Your task to perform on an android device: turn off notifications settings in the gmail app Image 0: 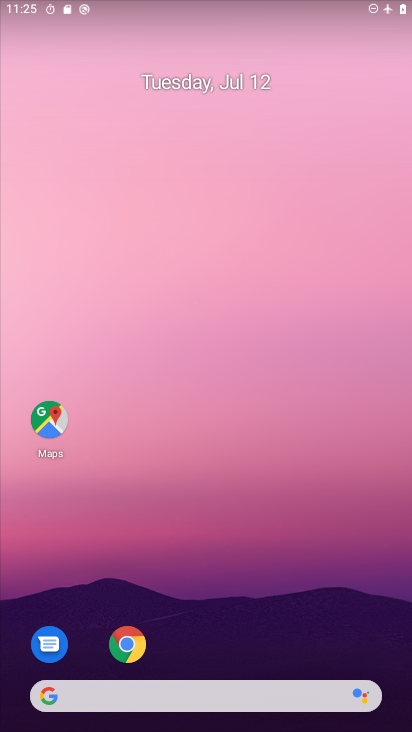
Step 0: drag from (219, 634) to (254, 233)
Your task to perform on an android device: turn off notifications settings in the gmail app Image 1: 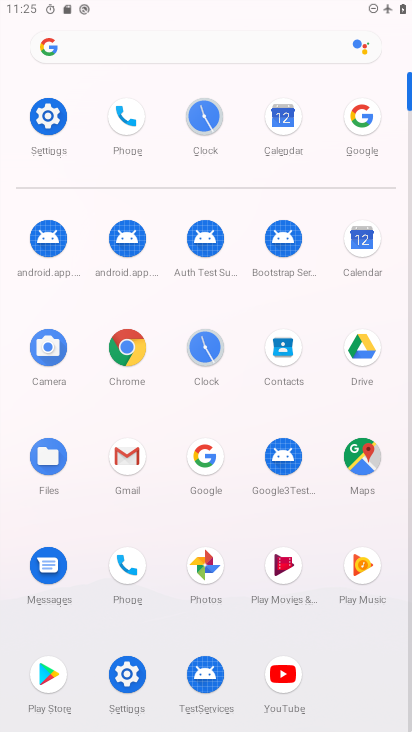
Step 1: click (56, 117)
Your task to perform on an android device: turn off notifications settings in the gmail app Image 2: 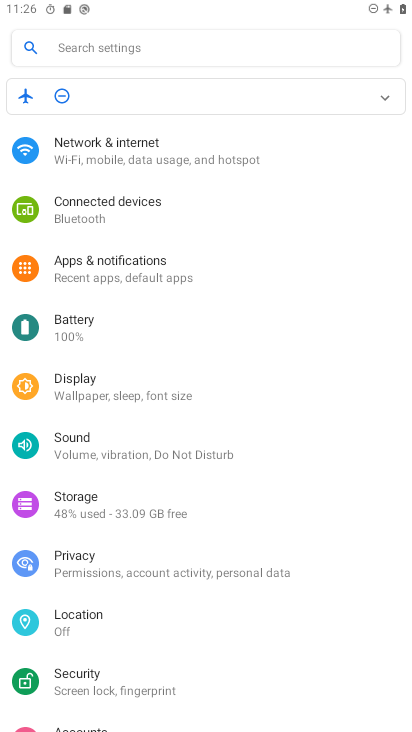
Step 2: press home button
Your task to perform on an android device: turn off notifications settings in the gmail app Image 3: 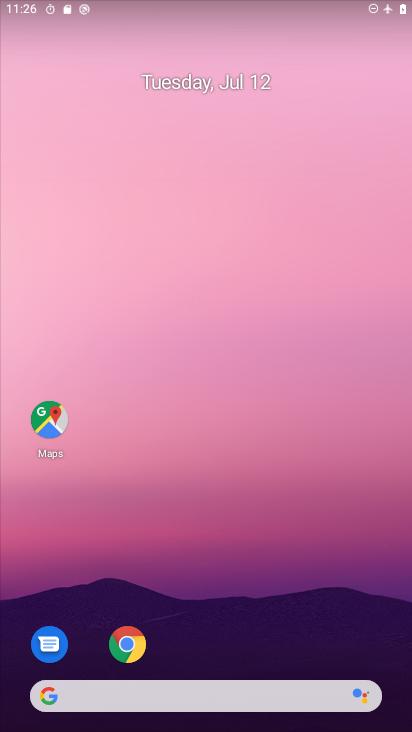
Step 3: drag from (203, 626) to (218, 158)
Your task to perform on an android device: turn off notifications settings in the gmail app Image 4: 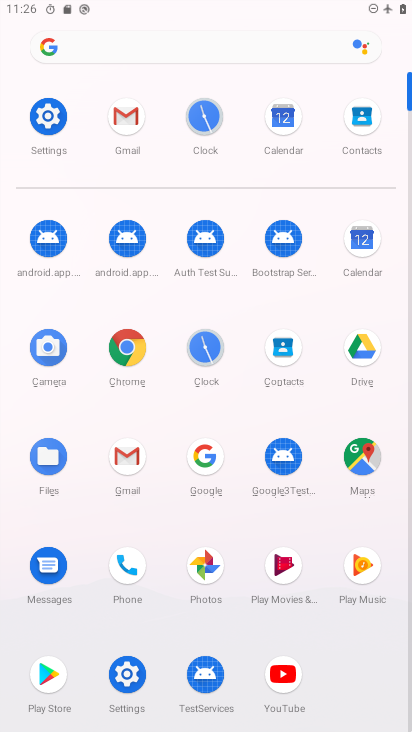
Step 4: click (123, 104)
Your task to perform on an android device: turn off notifications settings in the gmail app Image 5: 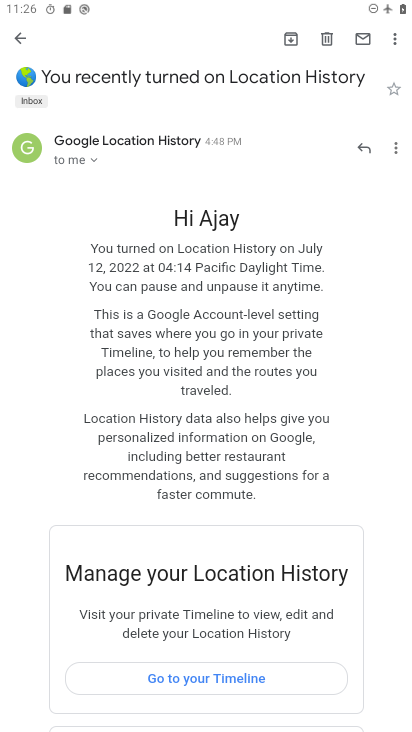
Step 5: click (21, 32)
Your task to perform on an android device: turn off notifications settings in the gmail app Image 6: 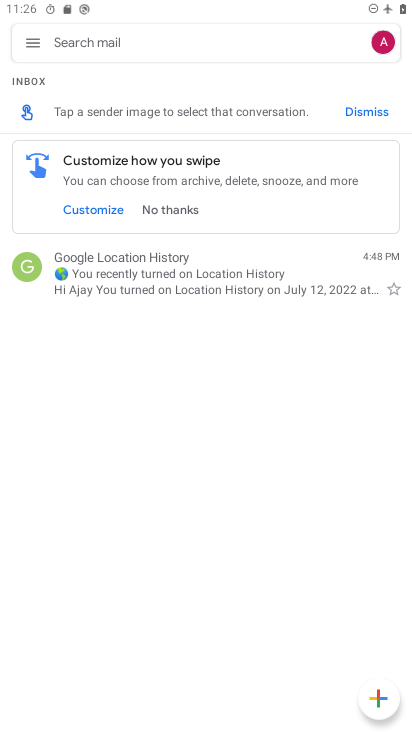
Step 6: click (21, 32)
Your task to perform on an android device: turn off notifications settings in the gmail app Image 7: 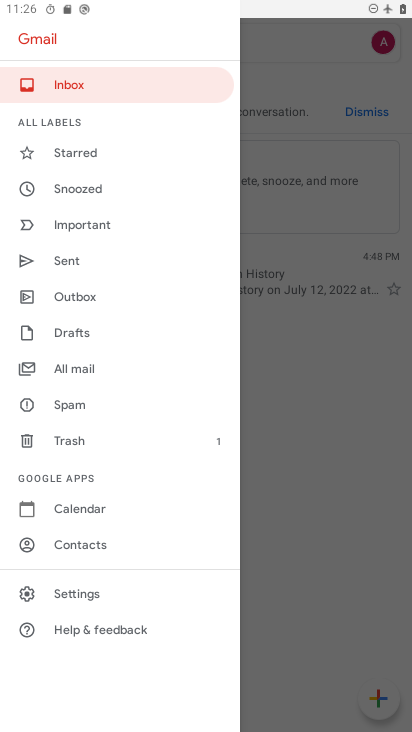
Step 7: click (107, 592)
Your task to perform on an android device: turn off notifications settings in the gmail app Image 8: 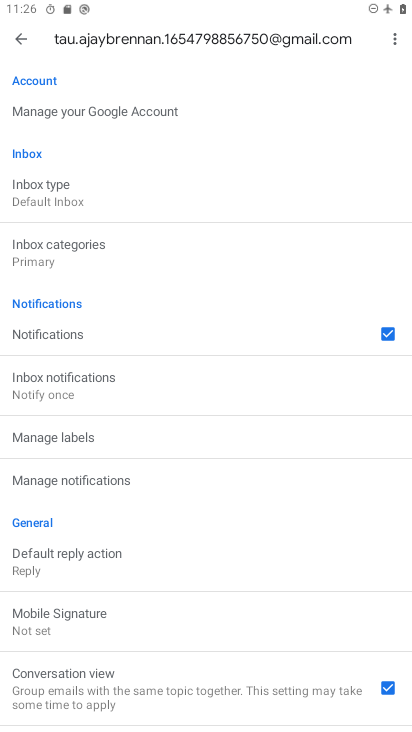
Step 8: click (138, 474)
Your task to perform on an android device: turn off notifications settings in the gmail app Image 9: 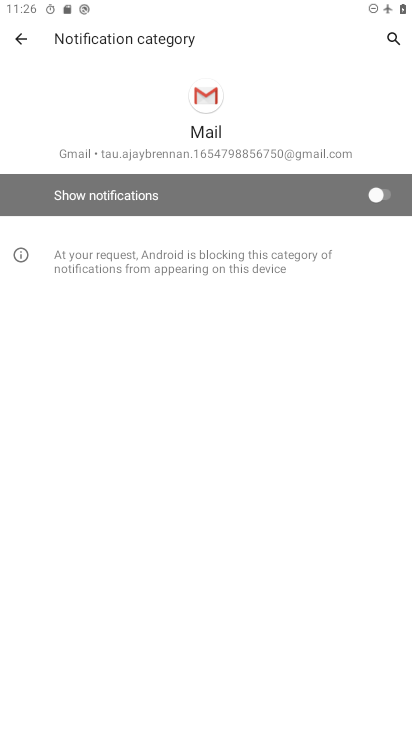
Step 9: task complete